Your task to perform on an android device: open app "NewsBreak: Local News & Alerts" (install if not already installed) Image 0: 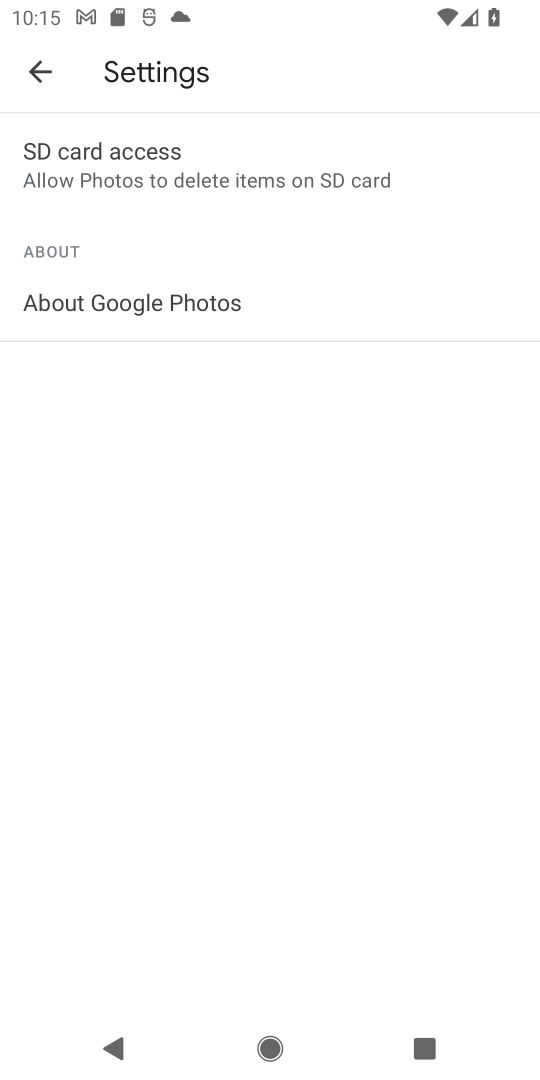
Step 0: press back button
Your task to perform on an android device: open app "NewsBreak: Local News & Alerts" (install if not already installed) Image 1: 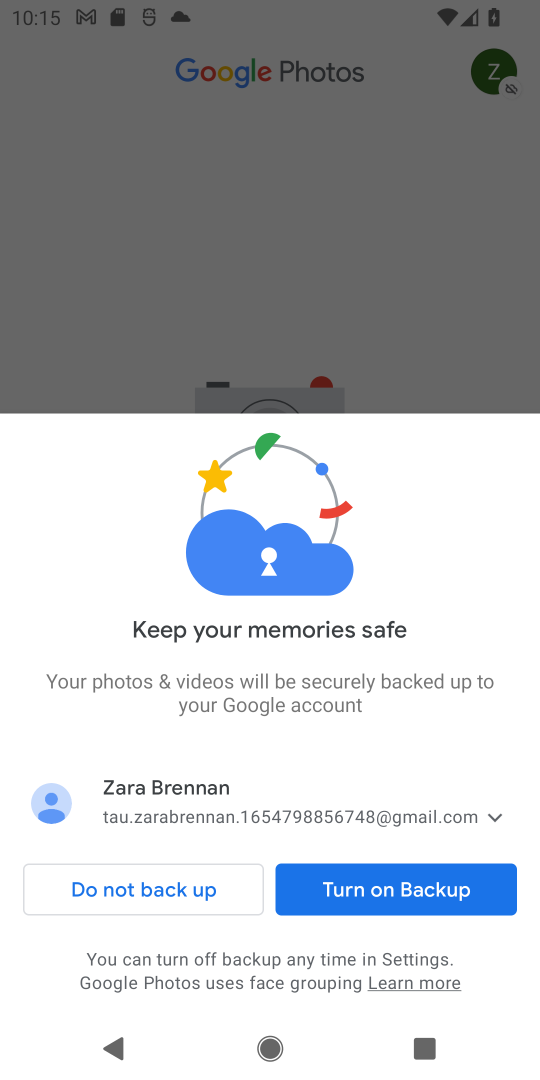
Step 1: press home button
Your task to perform on an android device: open app "NewsBreak: Local News & Alerts" (install if not already installed) Image 2: 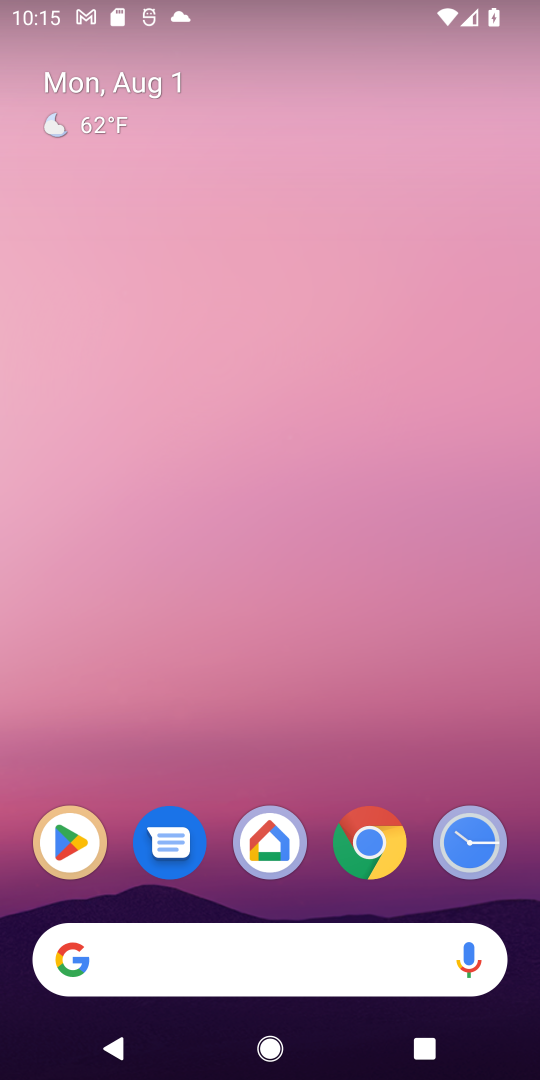
Step 2: click (65, 839)
Your task to perform on an android device: open app "NewsBreak: Local News & Alerts" (install if not already installed) Image 3: 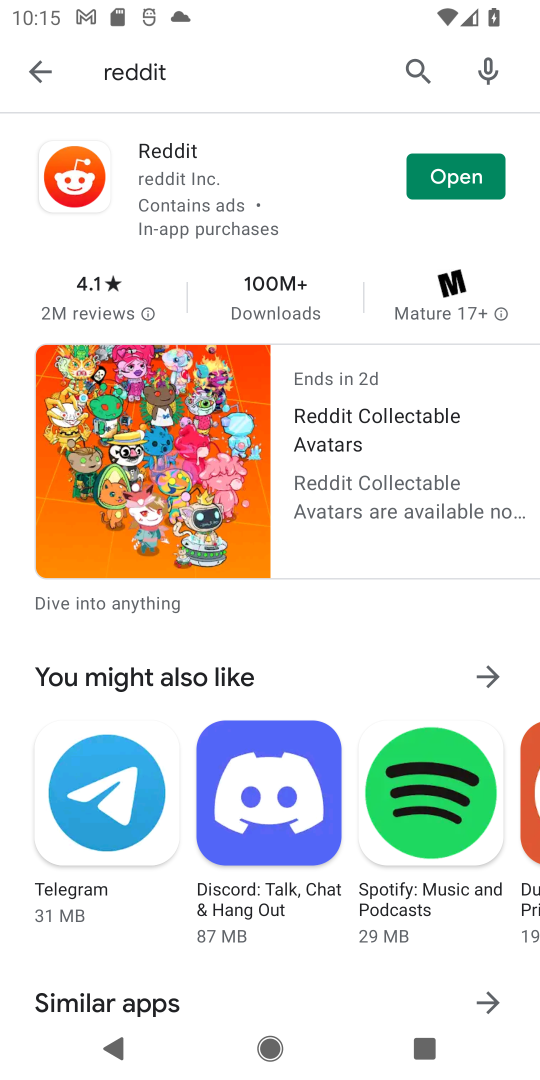
Step 3: click (394, 67)
Your task to perform on an android device: open app "NewsBreak: Local News & Alerts" (install if not already installed) Image 4: 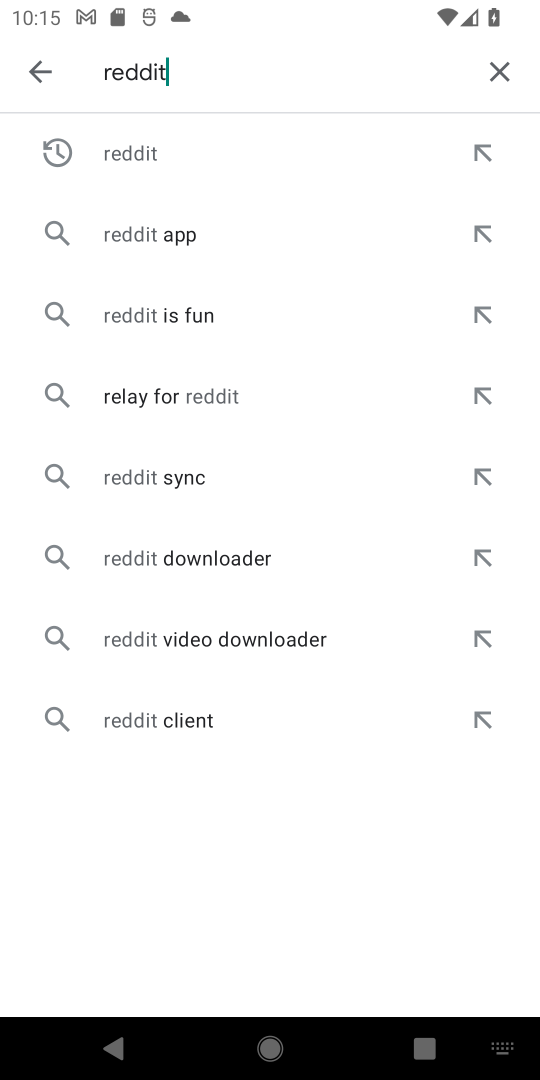
Step 4: click (498, 64)
Your task to perform on an android device: open app "NewsBreak: Local News & Alerts" (install if not already installed) Image 5: 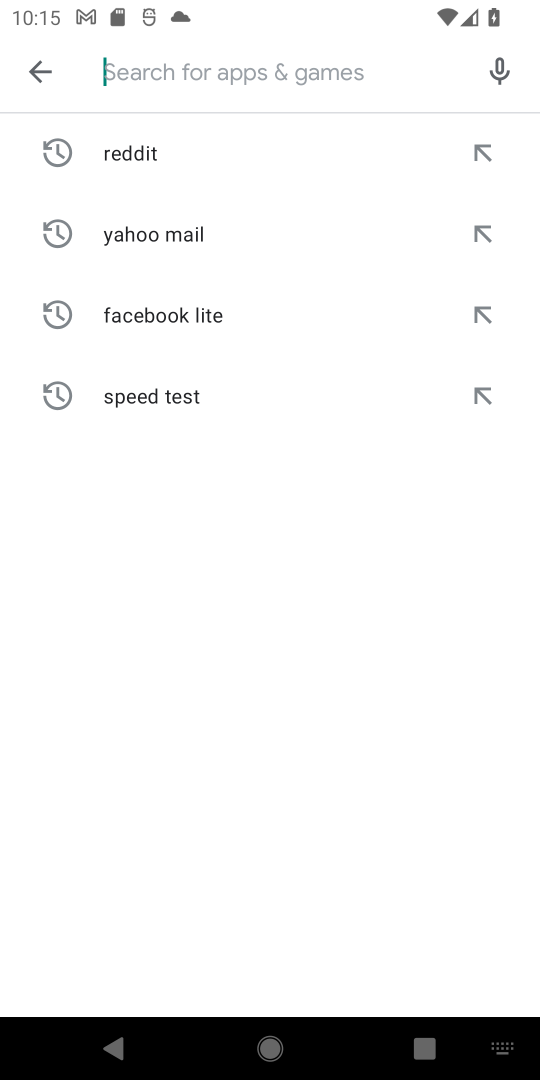
Step 5: click (231, 74)
Your task to perform on an android device: open app "NewsBreak: Local News & Alerts" (install if not already installed) Image 6: 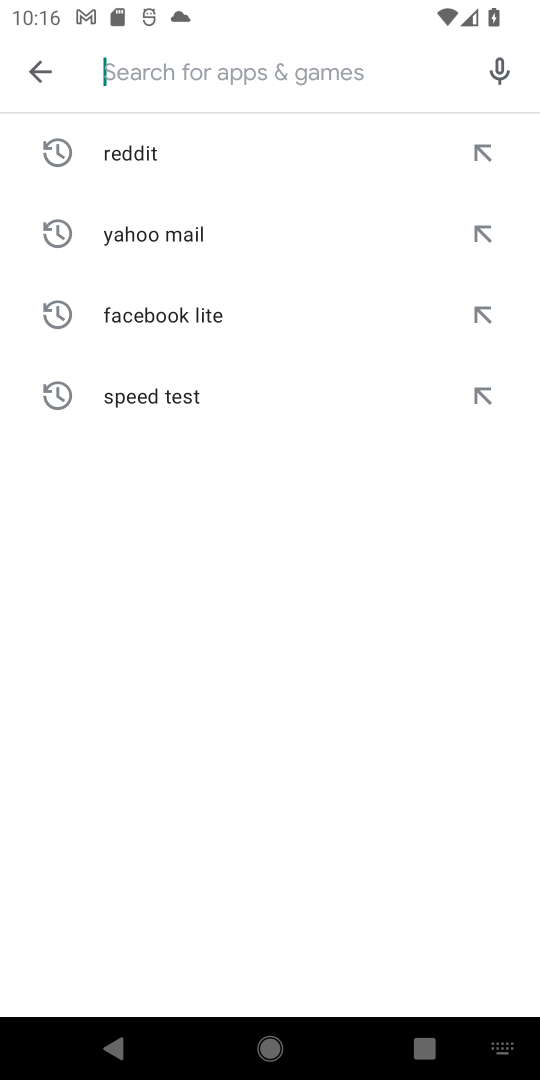
Step 6: click (152, 70)
Your task to perform on an android device: open app "NewsBreak: Local News & Alerts" (install if not already installed) Image 7: 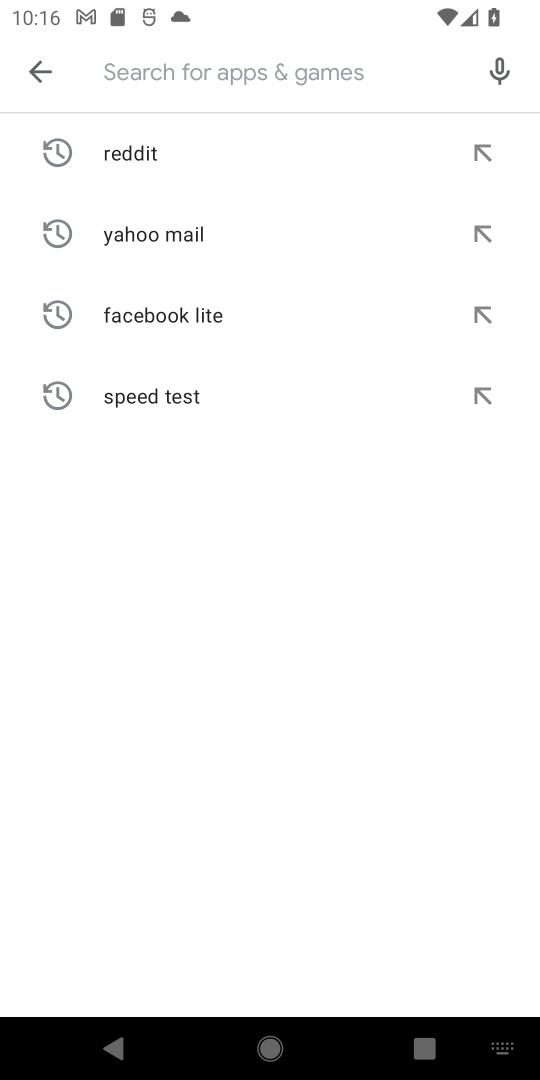
Step 7: type "NewsBreak: Local News & Alerts"
Your task to perform on an android device: open app "NewsBreak: Local News & Alerts" (install if not already installed) Image 8: 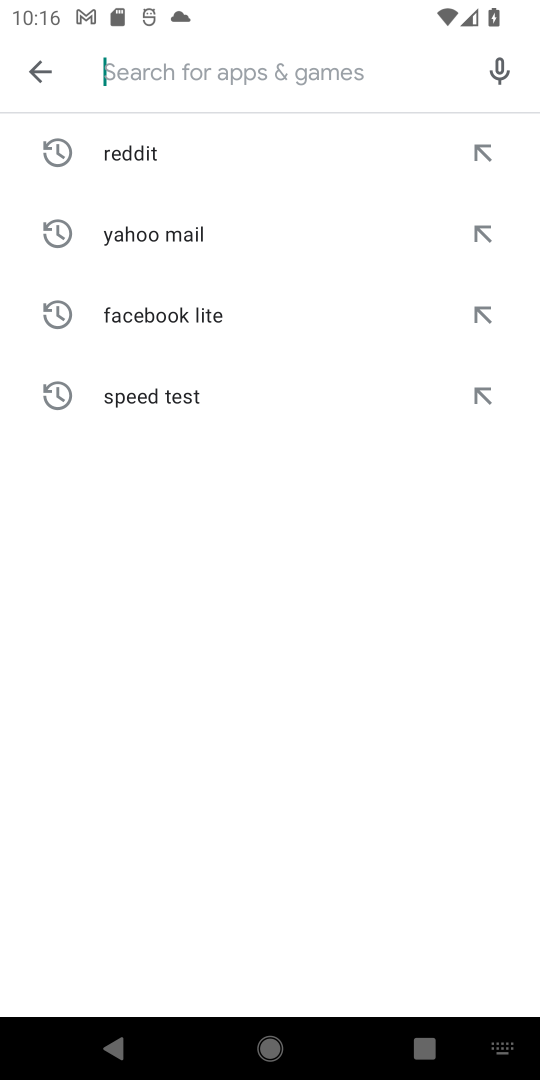
Step 8: click (210, 659)
Your task to perform on an android device: open app "NewsBreak: Local News & Alerts" (install if not already installed) Image 9: 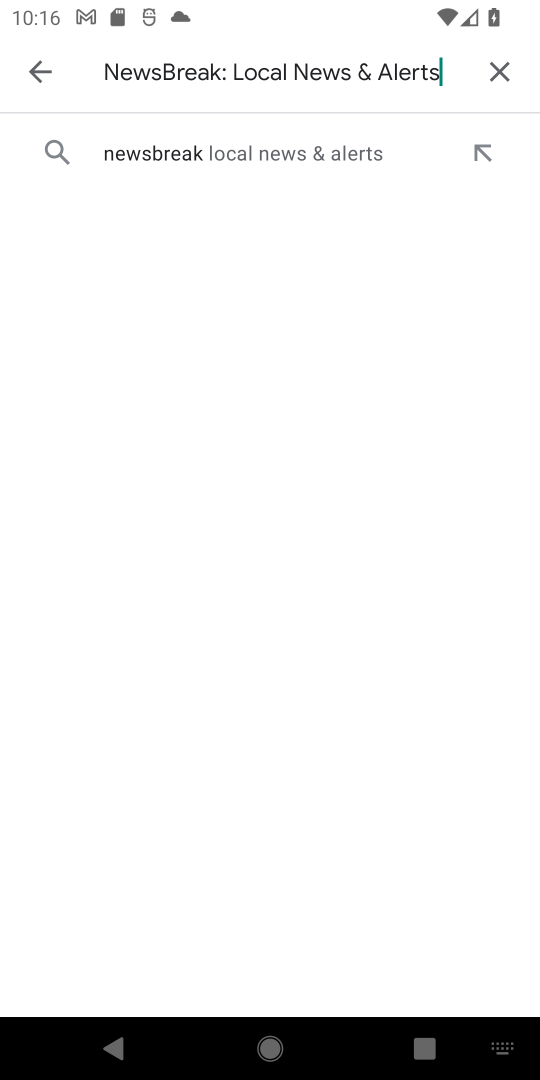
Step 9: click (238, 149)
Your task to perform on an android device: open app "NewsBreak: Local News & Alerts" (install if not already installed) Image 10: 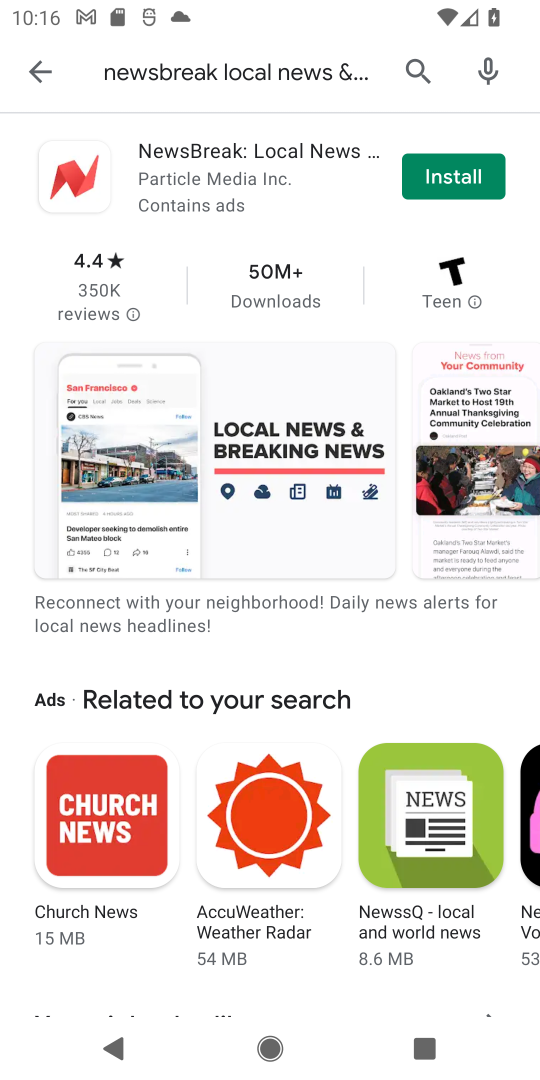
Step 10: click (415, 176)
Your task to perform on an android device: open app "NewsBreak: Local News & Alerts" (install if not already installed) Image 11: 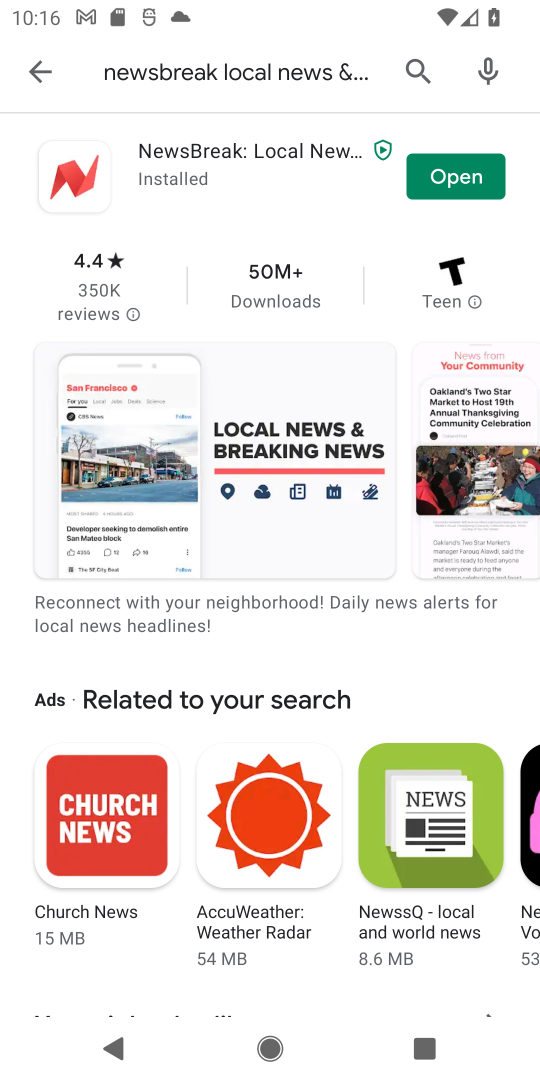
Step 11: click (441, 174)
Your task to perform on an android device: open app "NewsBreak: Local News & Alerts" (install if not already installed) Image 12: 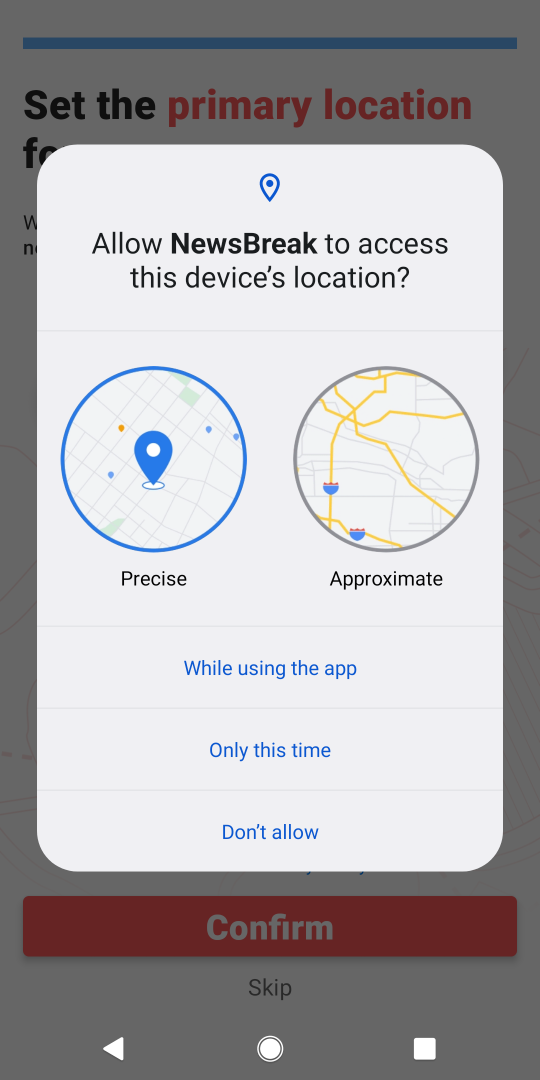
Step 12: task complete